Your task to perform on an android device: change the upload size in google photos Image 0: 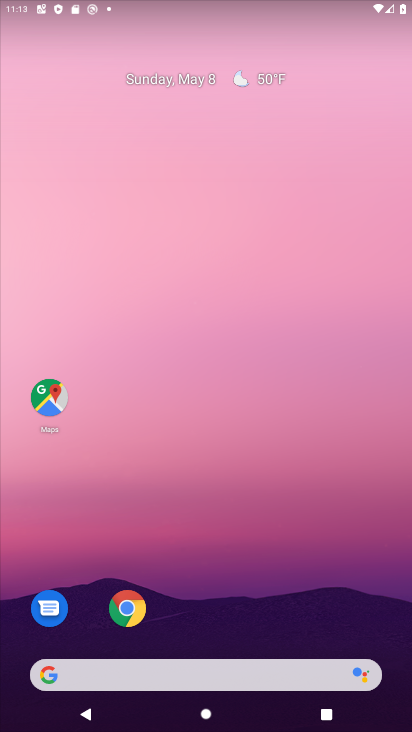
Step 0: drag from (346, 527) to (358, 11)
Your task to perform on an android device: change the upload size in google photos Image 1: 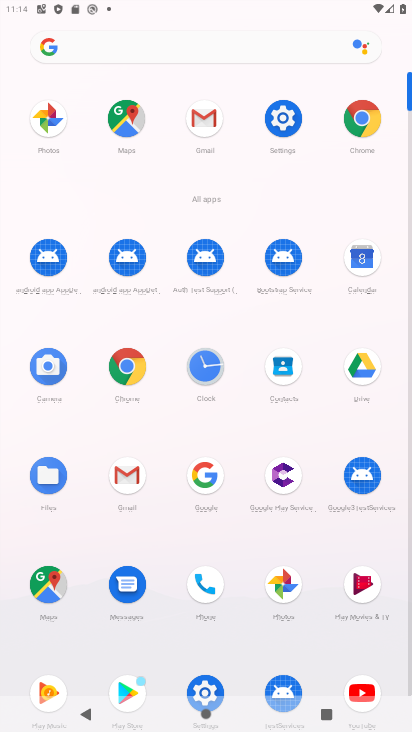
Step 1: click (222, 479)
Your task to perform on an android device: change the upload size in google photos Image 2: 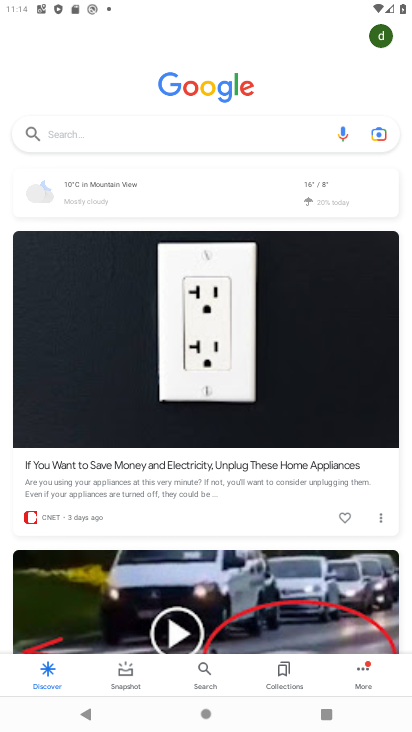
Step 2: press home button
Your task to perform on an android device: change the upload size in google photos Image 3: 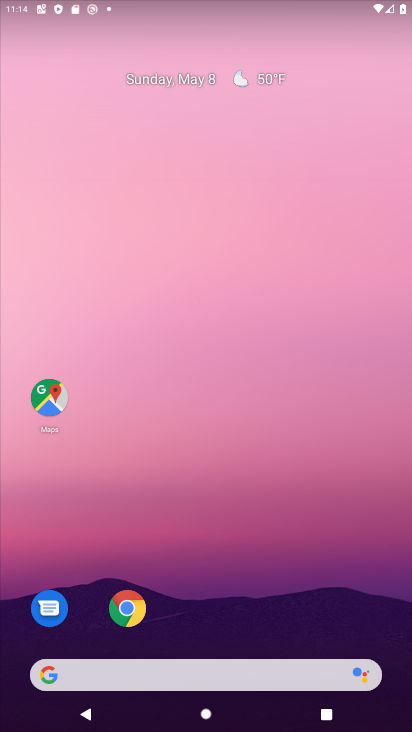
Step 3: drag from (239, 615) to (242, 87)
Your task to perform on an android device: change the upload size in google photos Image 4: 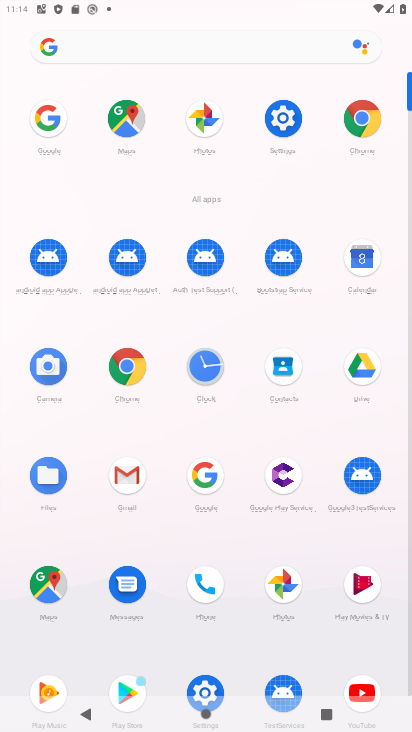
Step 4: click (214, 120)
Your task to perform on an android device: change the upload size in google photos Image 5: 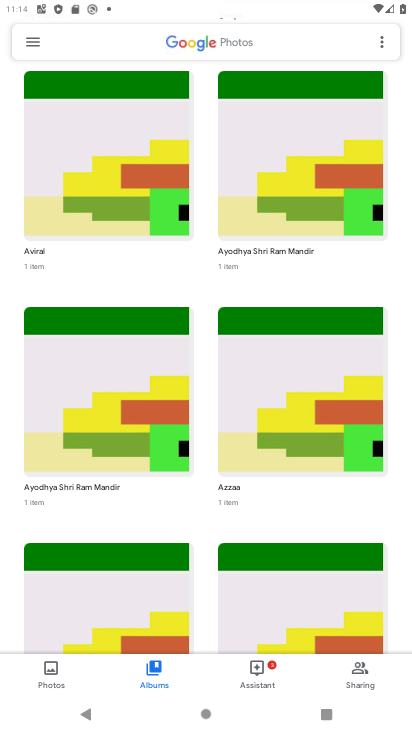
Step 5: click (31, 39)
Your task to perform on an android device: change the upload size in google photos Image 6: 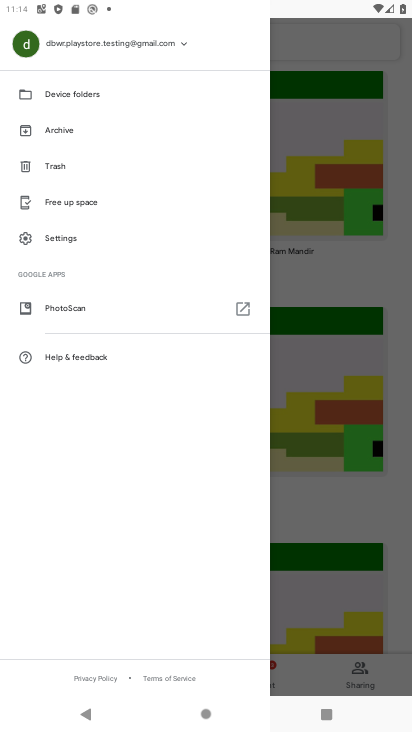
Step 6: click (80, 247)
Your task to perform on an android device: change the upload size in google photos Image 7: 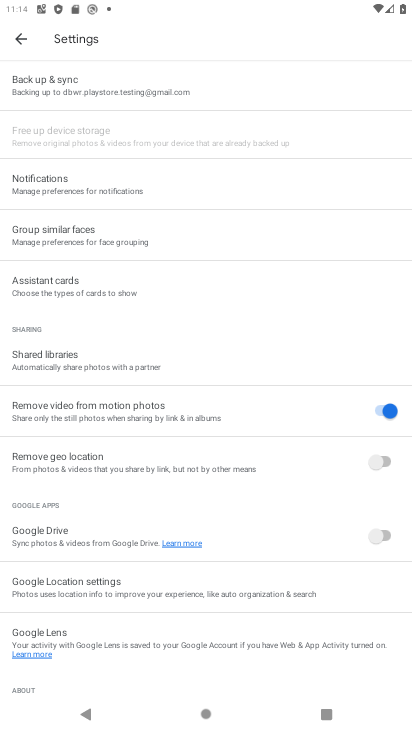
Step 7: click (80, 93)
Your task to perform on an android device: change the upload size in google photos Image 8: 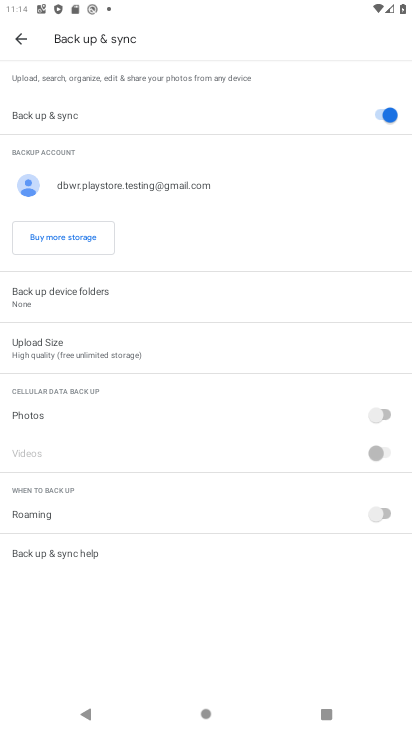
Step 8: click (53, 347)
Your task to perform on an android device: change the upload size in google photos Image 9: 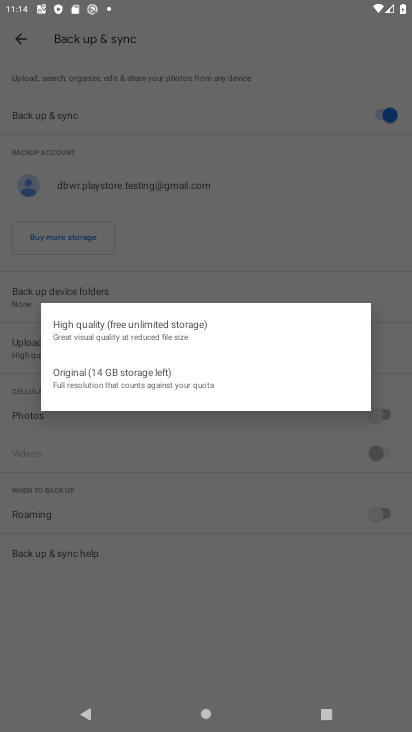
Step 9: click (121, 380)
Your task to perform on an android device: change the upload size in google photos Image 10: 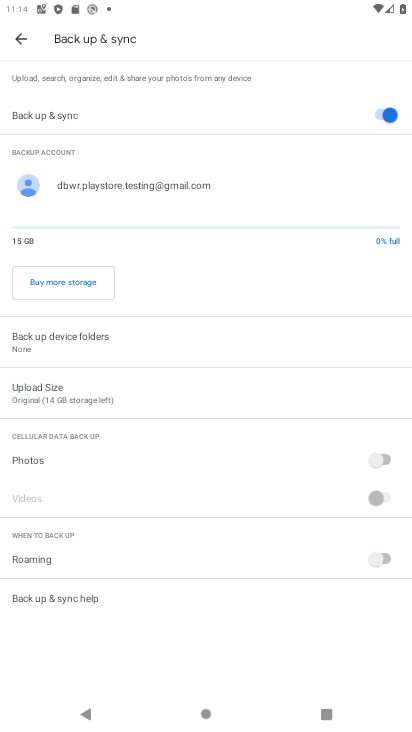
Step 10: task complete